Your task to perform on an android device: Open notification settings Image 0: 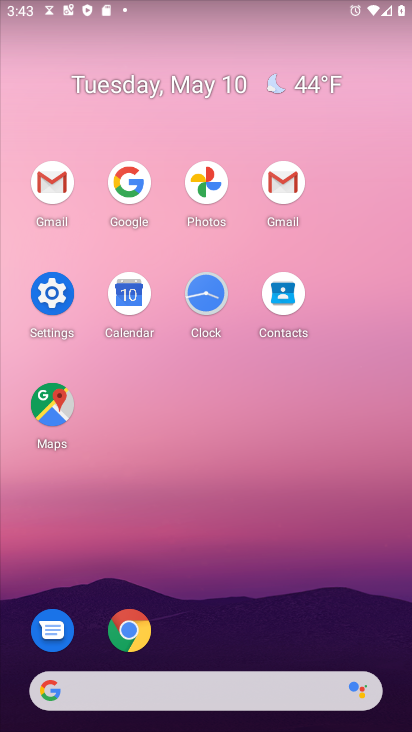
Step 0: click (50, 307)
Your task to perform on an android device: Open notification settings Image 1: 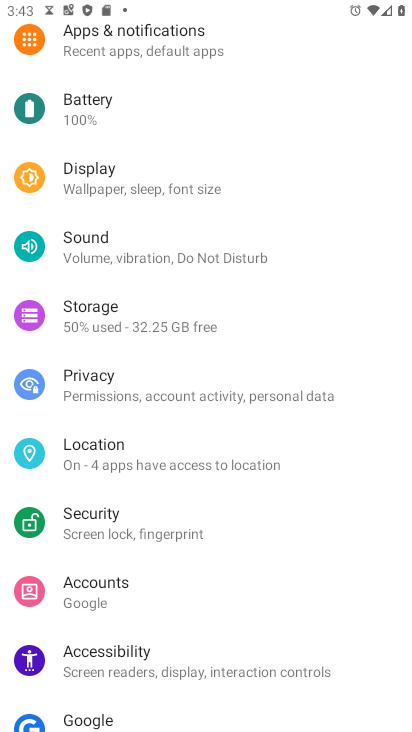
Step 1: click (219, 42)
Your task to perform on an android device: Open notification settings Image 2: 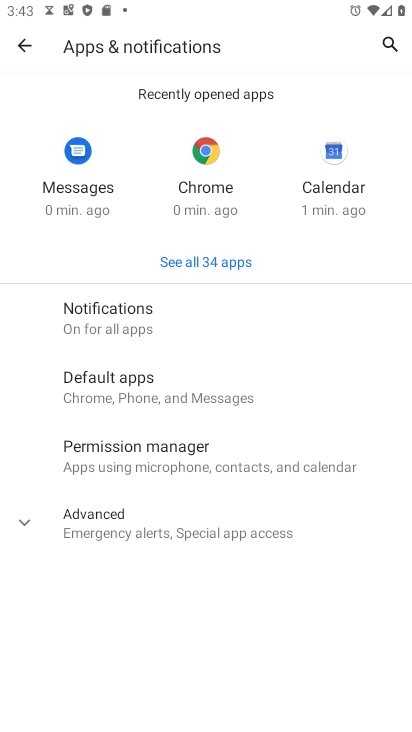
Step 2: task complete